Your task to perform on an android device: uninstall "Microsoft Outlook" Image 0: 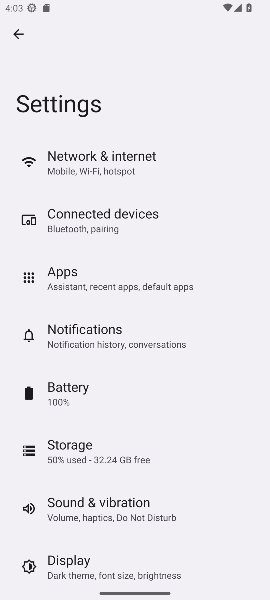
Step 0: press home button
Your task to perform on an android device: uninstall "Microsoft Outlook" Image 1: 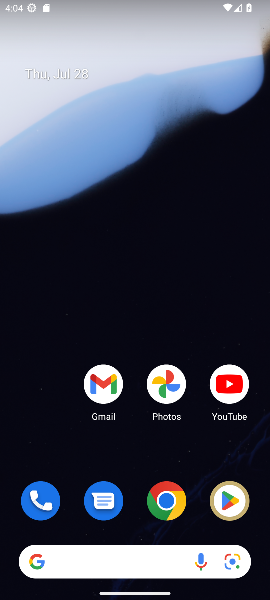
Step 1: click (239, 506)
Your task to perform on an android device: uninstall "Microsoft Outlook" Image 2: 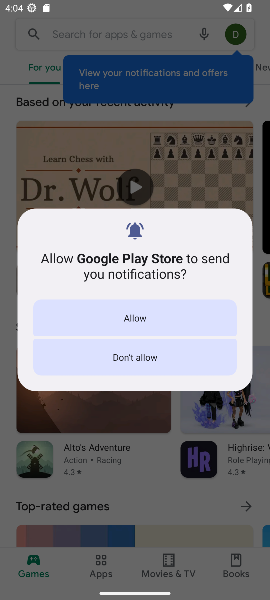
Step 2: click (139, 356)
Your task to perform on an android device: uninstall "Microsoft Outlook" Image 3: 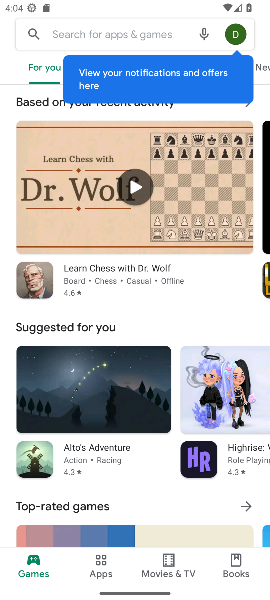
Step 3: click (66, 37)
Your task to perform on an android device: uninstall "Microsoft Outlook" Image 4: 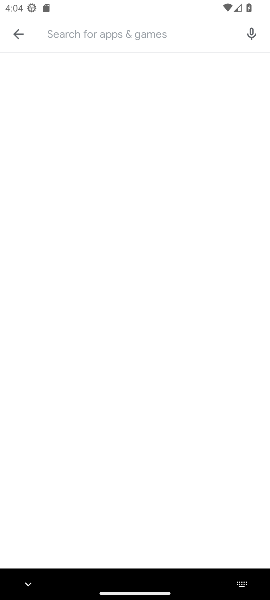
Step 4: type "Microsoft Outlook"
Your task to perform on an android device: uninstall "Microsoft Outlook" Image 5: 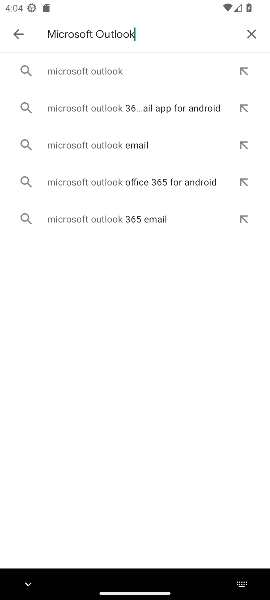
Step 5: click (105, 67)
Your task to perform on an android device: uninstall "Microsoft Outlook" Image 6: 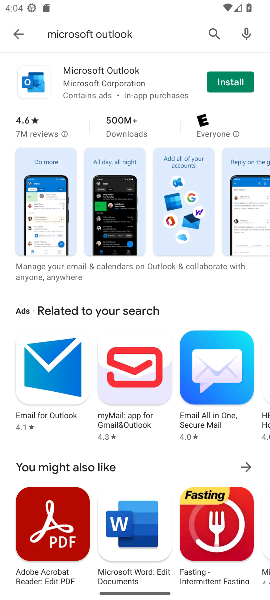
Step 6: task complete